Your task to perform on an android device: Show me the alarms in the clock app Image 0: 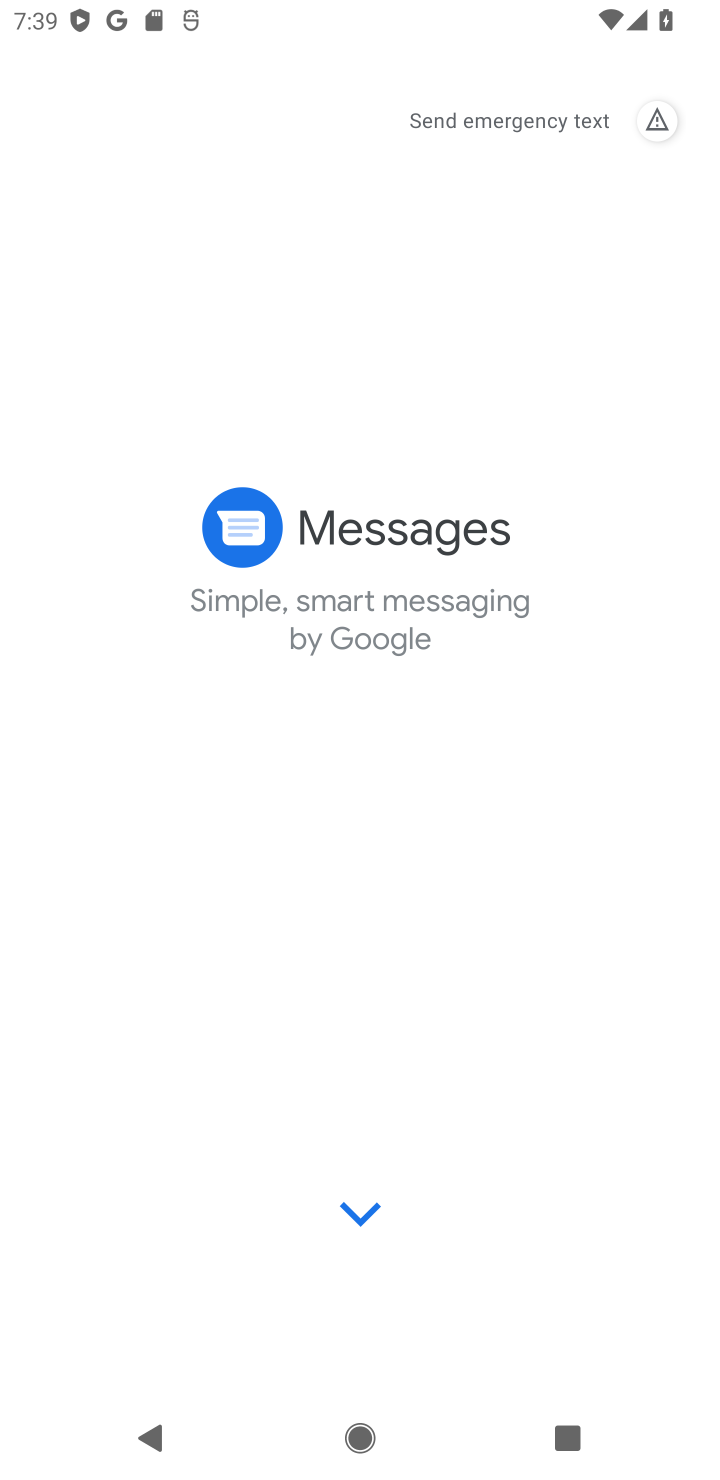
Step 0: press home button
Your task to perform on an android device: Show me the alarms in the clock app Image 1: 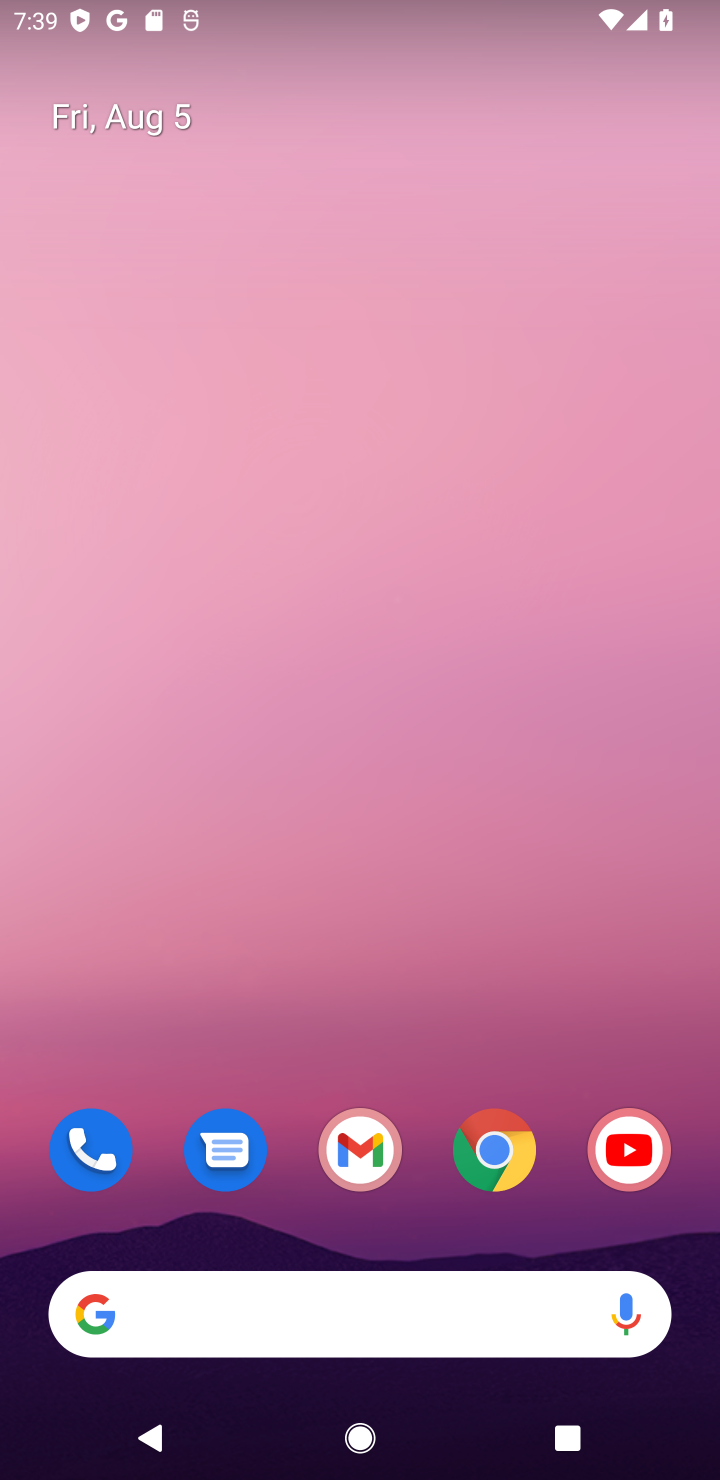
Step 1: drag from (414, 1061) to (432, 315)
Your task to perform on an android device: Show me the alarms in the clock app Image 2: 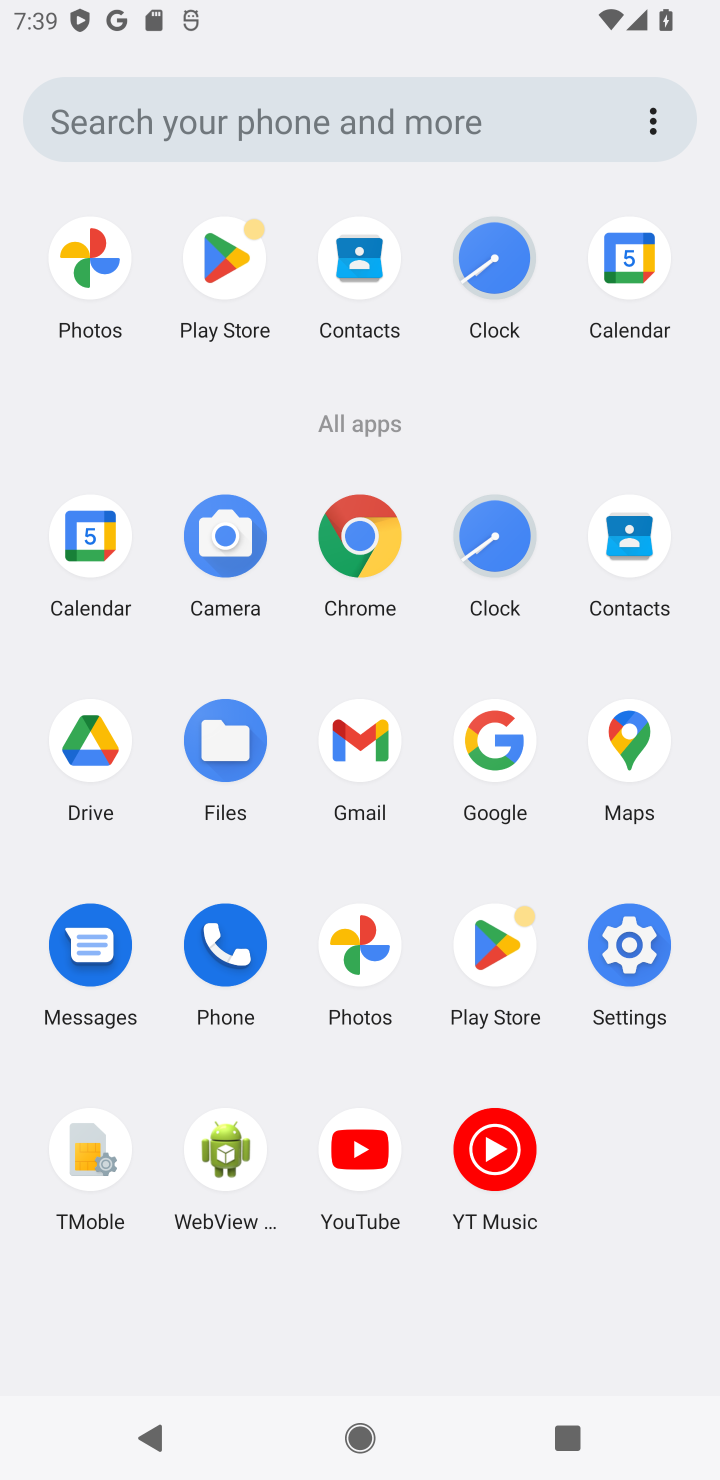
Step 2: click (505, 542)
Your task to perform on an android device: Show me the alarms in the clock app Image 3: 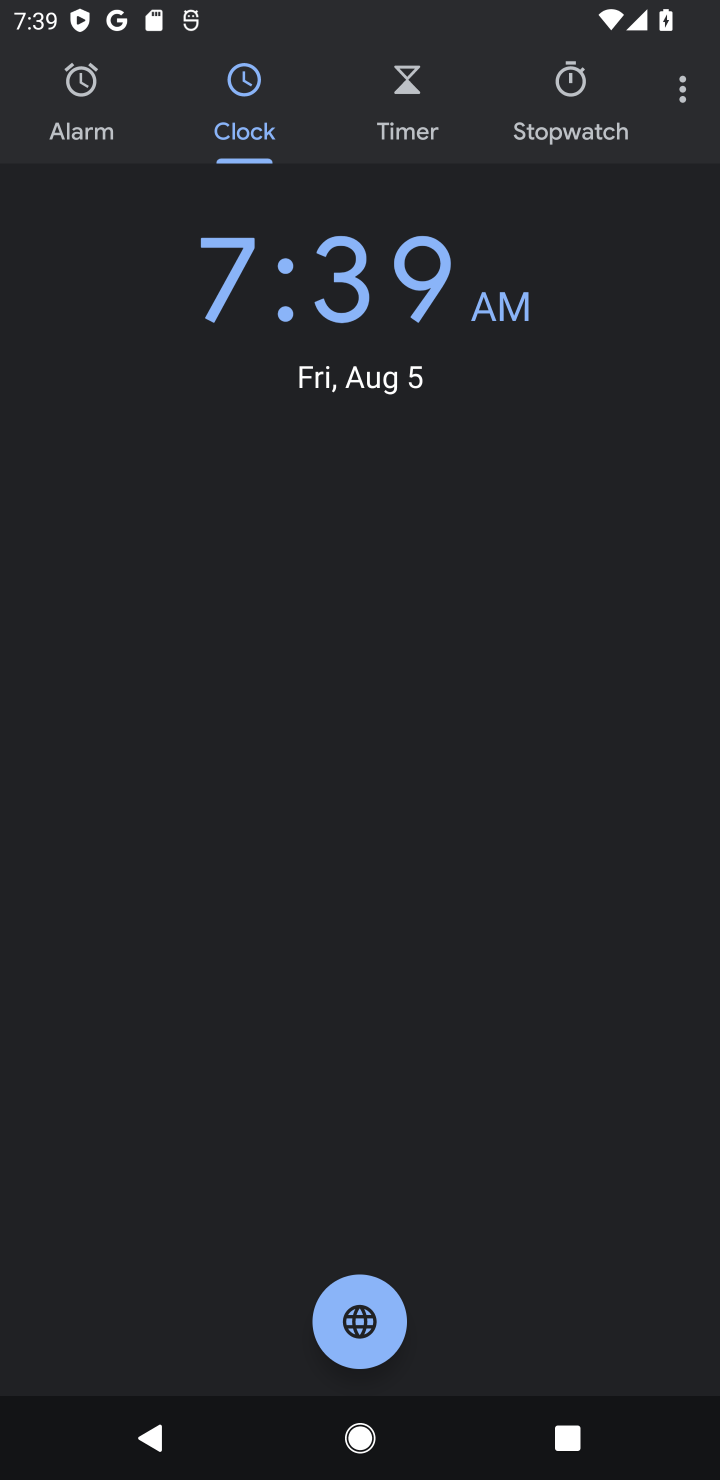
Step 3: click (84, 93)
Your task to perform on an android device: Show me the alarms in the clock app Image 4: 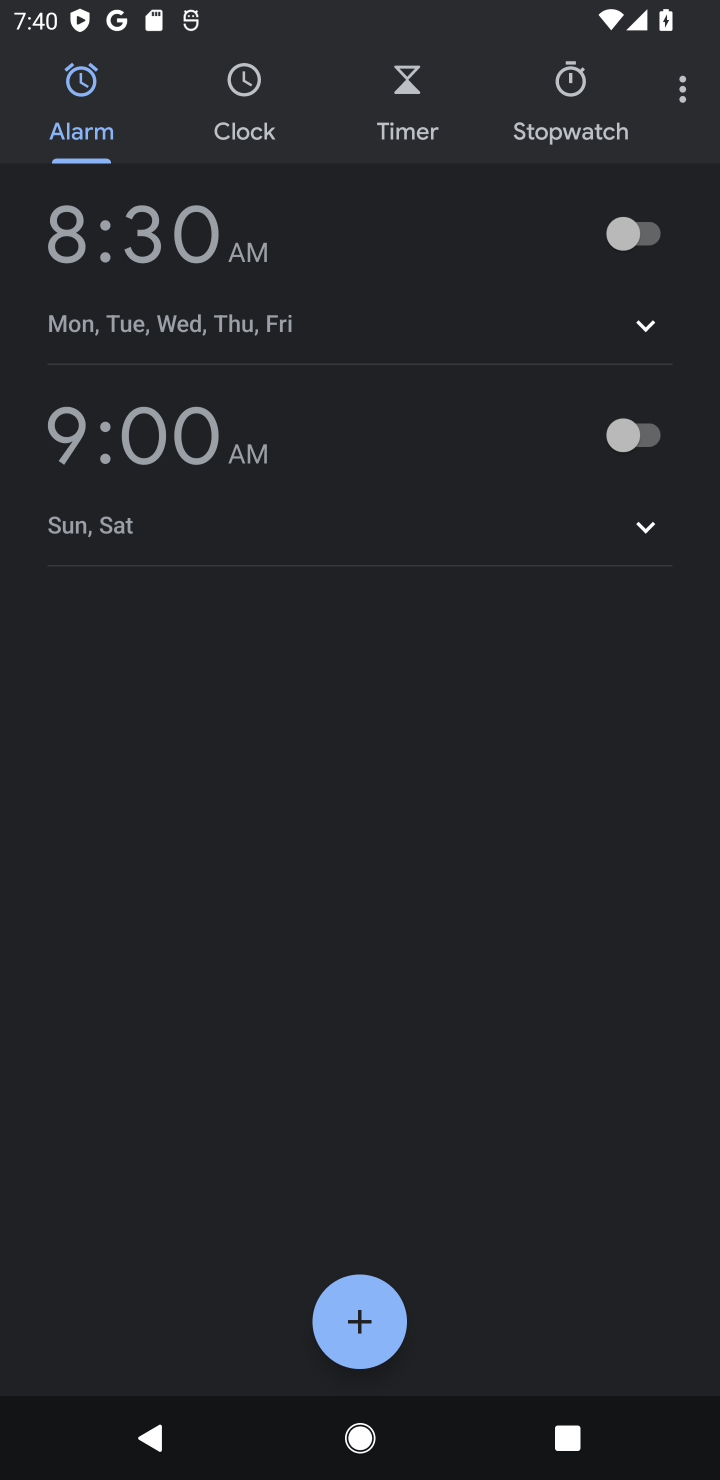
Step 4: task complete